Your task to perform on an android device: open app "Cash App" (install if not already installed) and enter user name: "submodules@gmail.com" and password: "heavenly" Image 0: 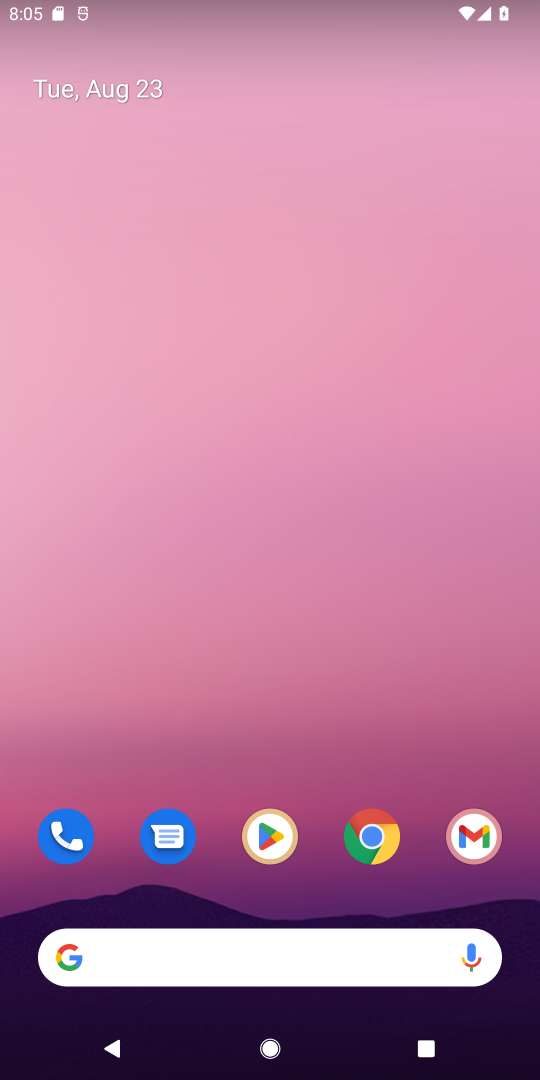
Step 0: click (279, 833)
Your task to perform on an android device: open app "Cash App" (install if not already installed) and enter user name: "submodules@gmail.com" and password: "heavenly" Image 1: 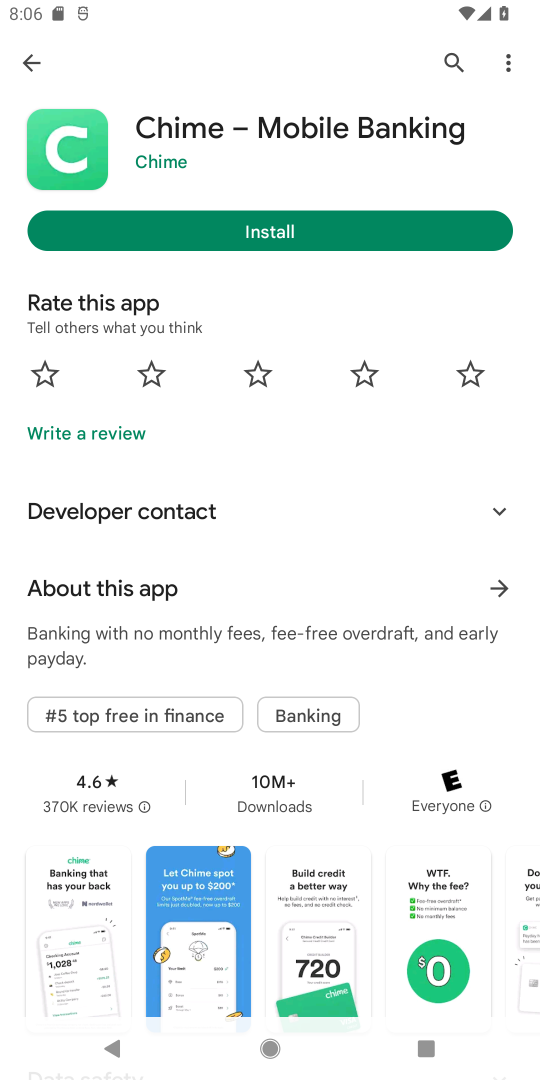
Step 1: click (451, 56)
Your task to perform on an android device: open app "Cash App" (install if not already installed) and enter user name: "submodules@gmail.com" and password: "heavenly" Image 2: 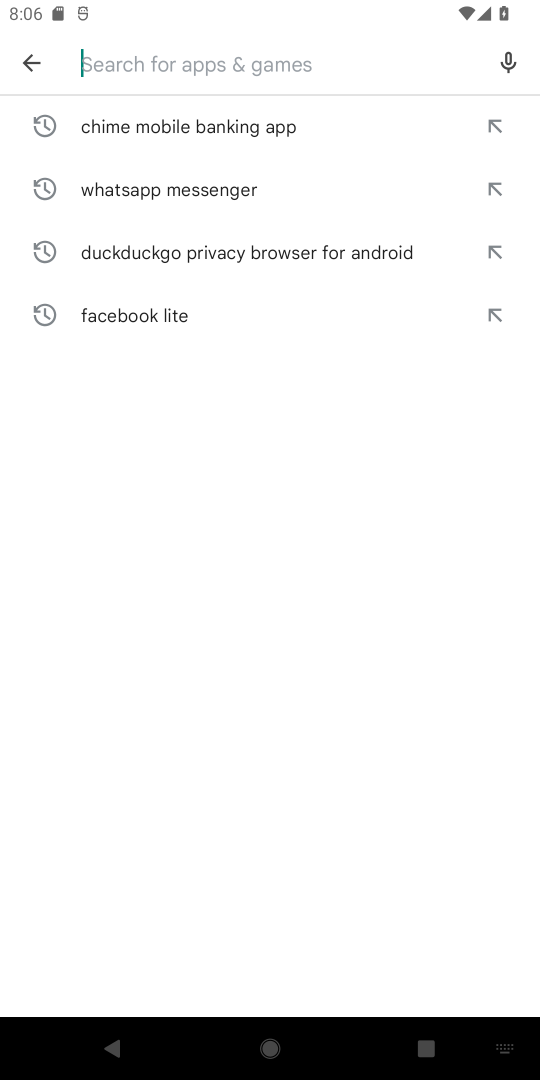
Step 2: type "Cash App"
Your task to perform on an android device: open app "Cash App" (install if not already installed) and enter user name: "submodules@gmail.com" and password: "heavenly" Image 3: 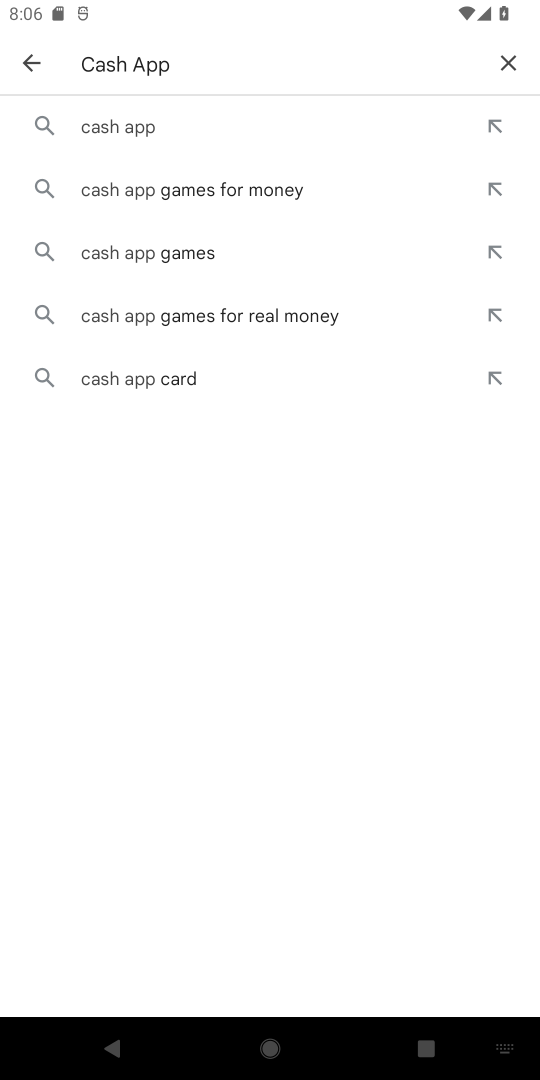
Step 3: click (113, 137)
Your task to perform on an android device: open app "Cash App" (install if not already installed) and enter user name: "submodules@gmail.com" and password: "heavenly" Image 4: 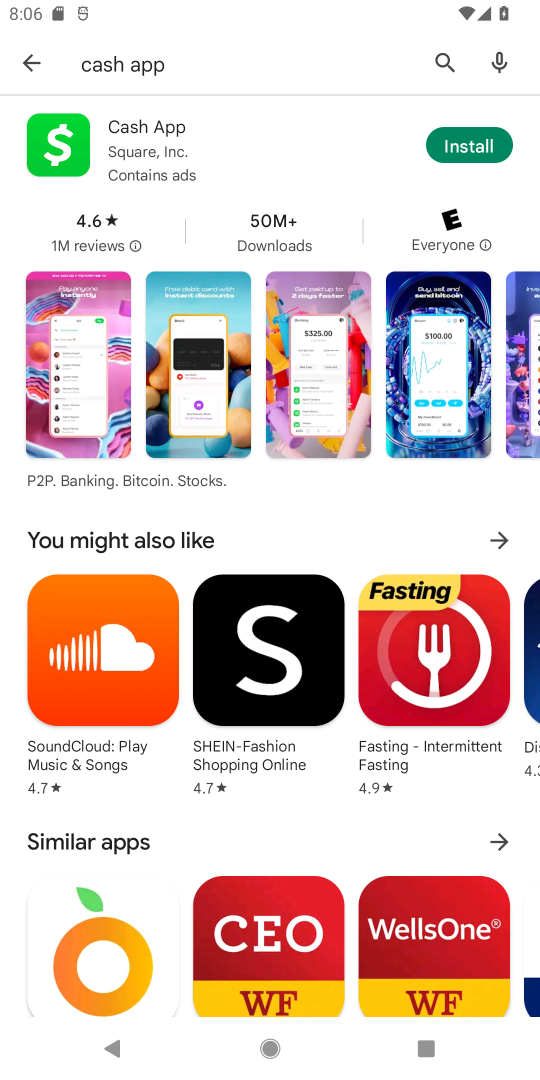
Step 4: click (479, 142)
Your task to perform on an android device: open app "Cash App" (install if not already installed) and enter user name: "submodules@gmail.com" and password: "heavenly" Image 5: 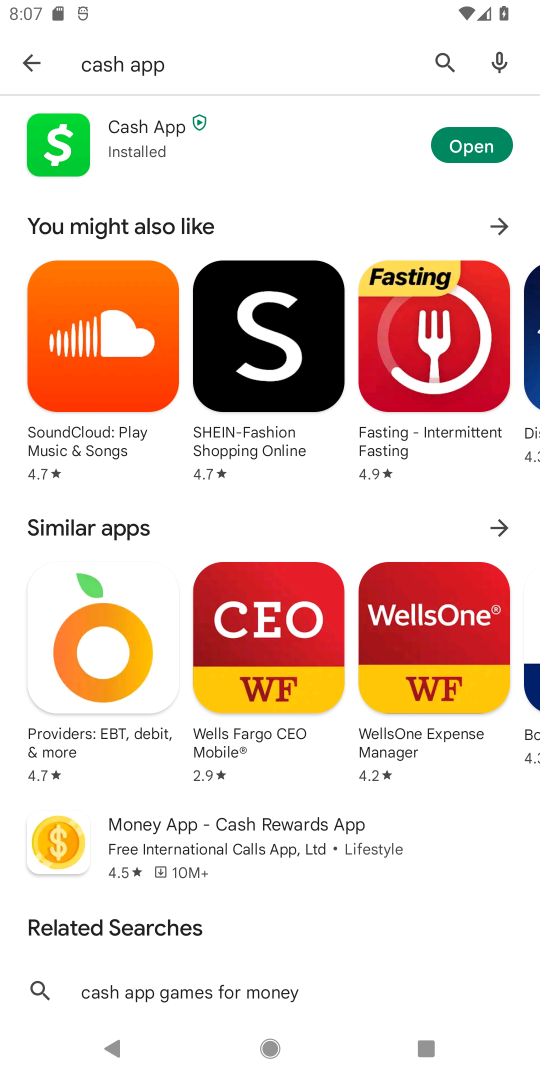
Step 5: click (472, 150)
Your task to perform on an android device: open app "Cash App" (install if not already installed) and enter user name: "submodules@gmail.com" and password: "heavenly" Image 6: 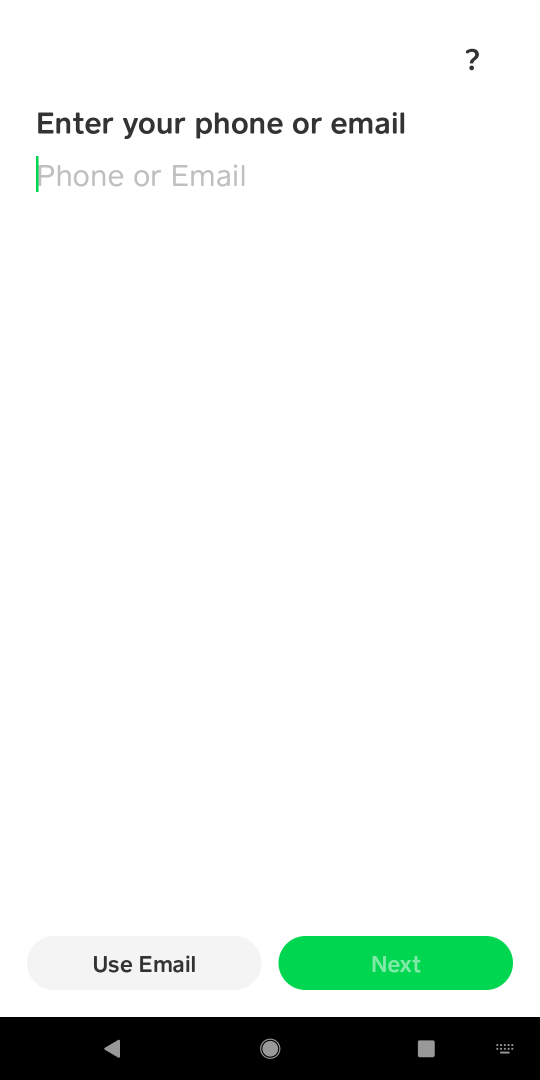
Step 6: type "submodules@gmail.com"
Your task to perform on an android device: open app "Cash App" (install if not already installed) and enter user name: "submodules@gmail.com" and password: "heavenly" Image 7: 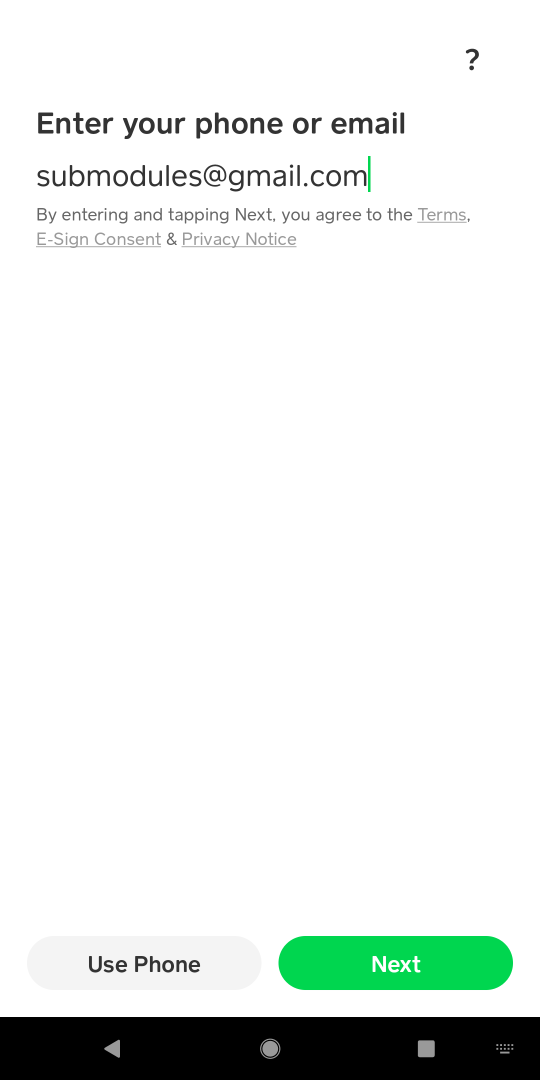
Step 7: click (393, 964)
Your task to perform on an android device: open app "Cash App" (install if not already installed) and enter user name: "submodules@gmail.com" and password: "heavenly" Image 8: 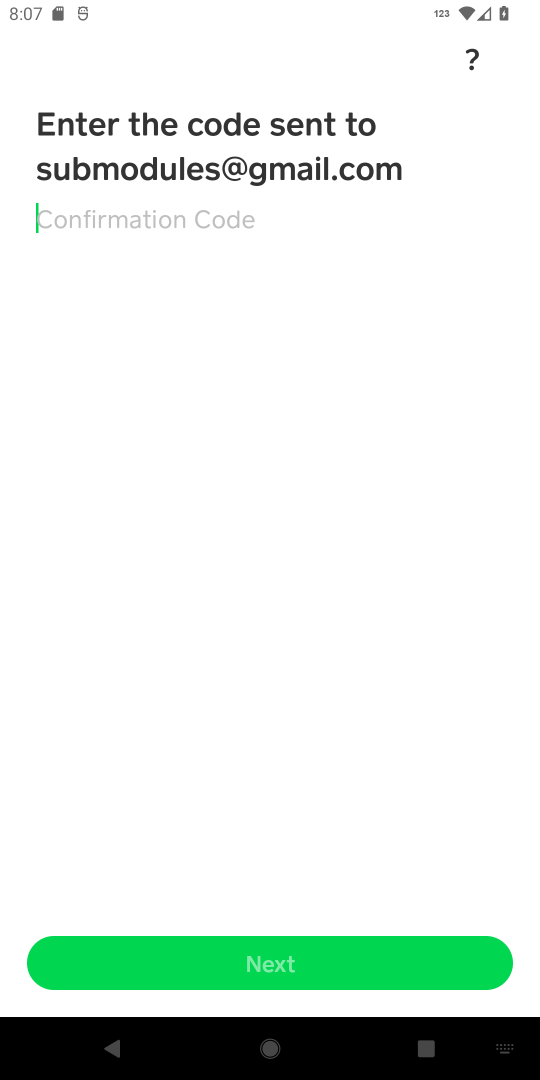
Step 8: task complete